Your task to perform on an android device: Open ESPN.com Image 0: 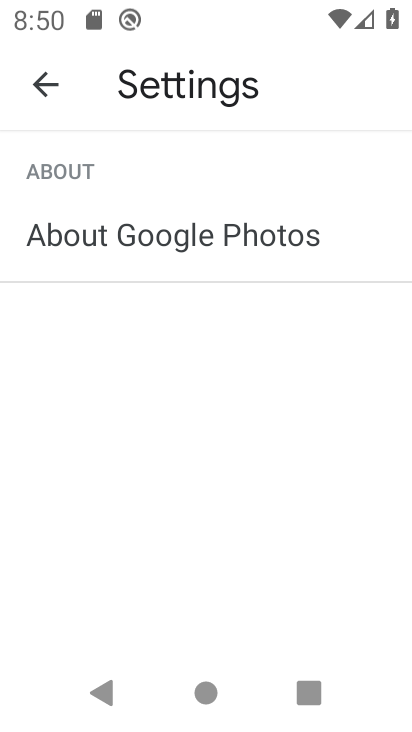
Step 0: press home button
Your task to perform on an android device: Open ESPN.com Image 1: 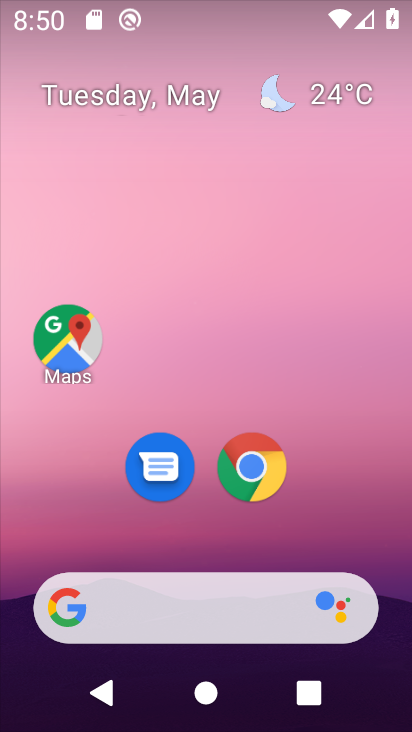
Step 1: click (243, 479)
Your task to perform on an android device: Open ESPN.com Image 2: 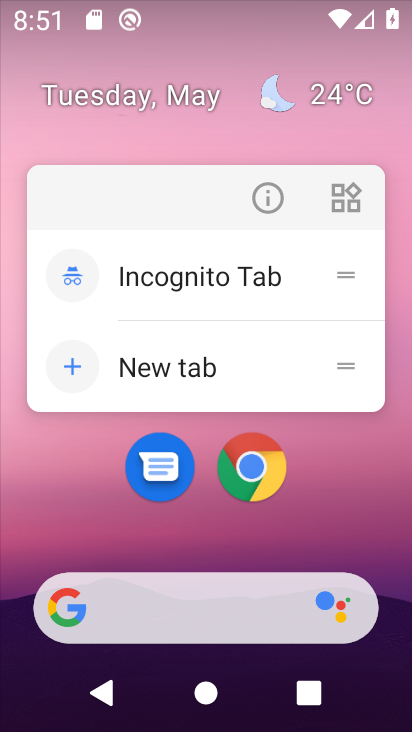
Step 2: click (256, 447)
Your task to perform on an android device: Open ESPN.com Image 3: 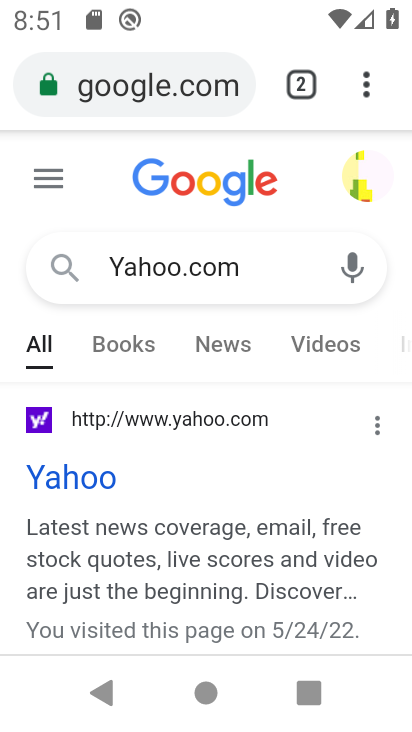
Step 3: click (236, 86)
Your task to perform on an android device: Open ESPN.com Image 4: 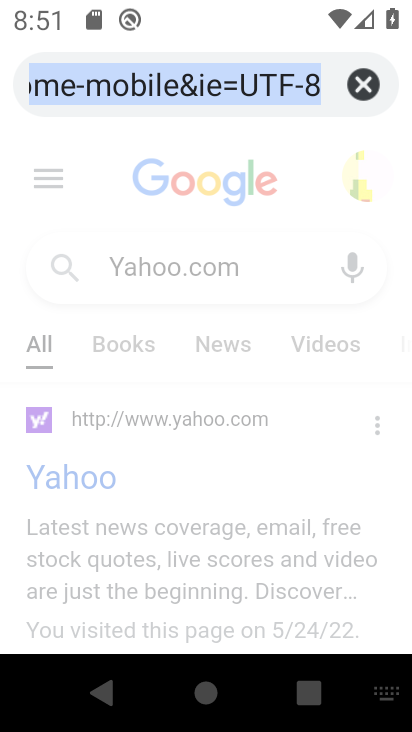
Step 4: click (354, 84)
Your task to perform on an android device: Open ESPN.com Image 5: 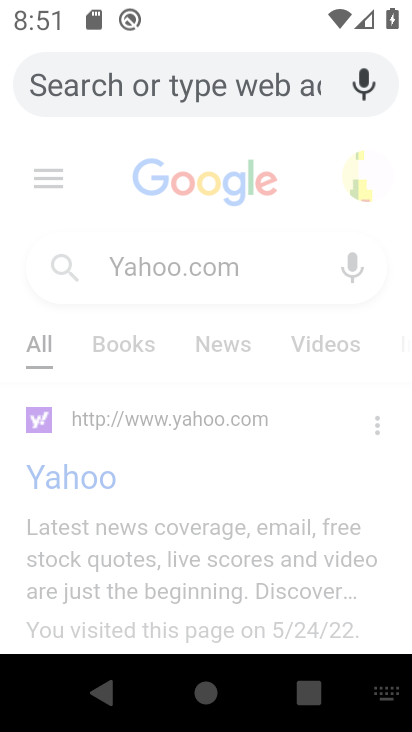
Step 5: click (247, 87)
Your task to perform on an android device: Open ESPN.com Image 6: 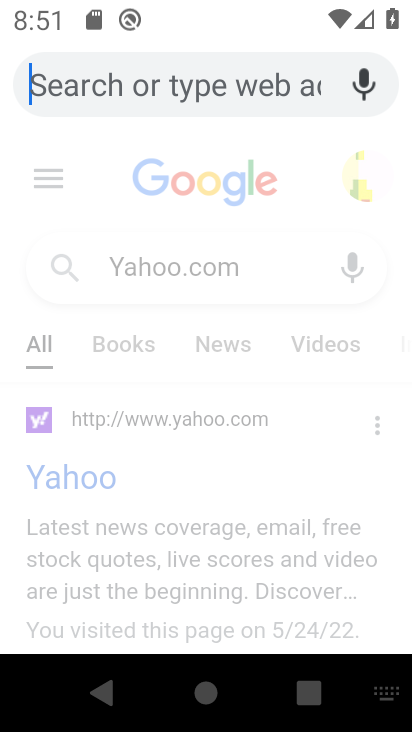
Step 6: click (247, 84)
Your task to perform on an android device: Open ESPN.com Image 7: 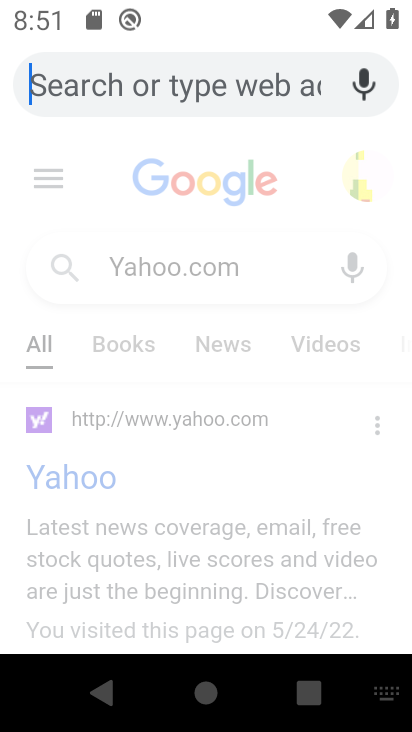
Step 7: type "ESPN.com"
Your task to perform on an android device: Open ESPN.com Image 8: 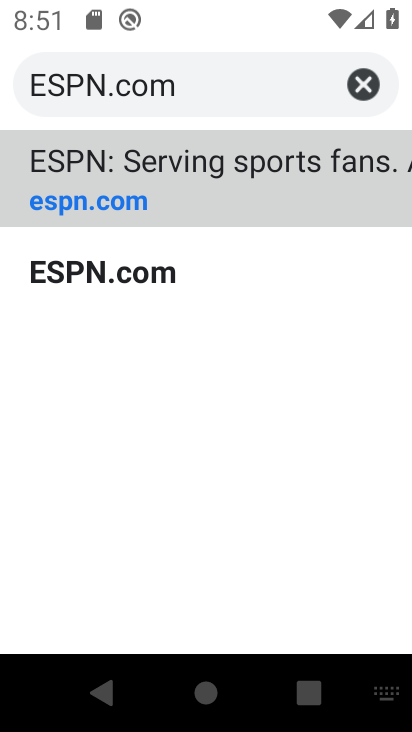
Step 8: click (123, 275)
Your task to perform on an android device: Open ESPN.com Image 9: 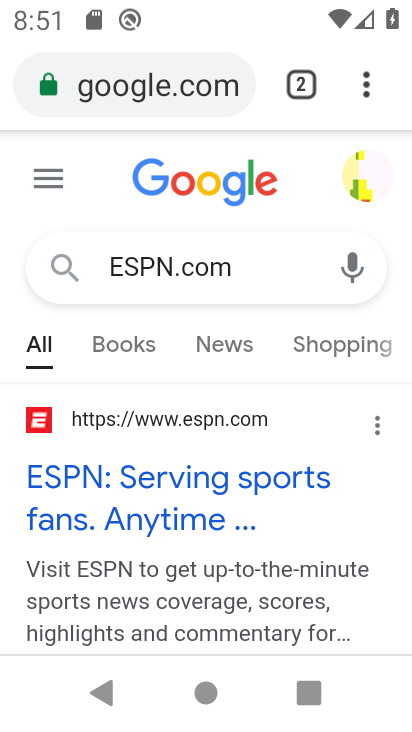
Step 9: task complete